Your task to perform on an android device: Go to Amazon Image 0: 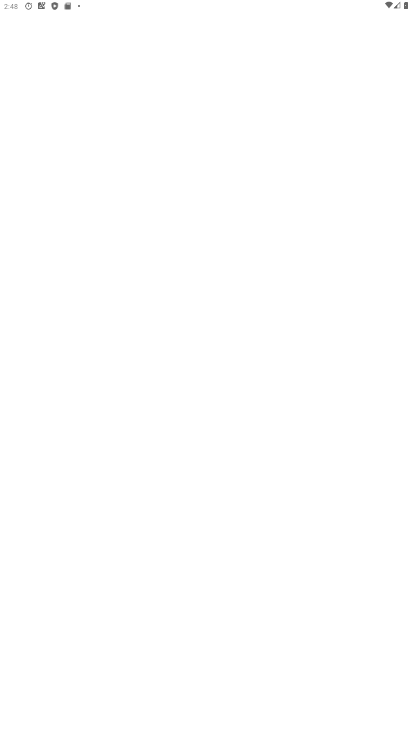
Step 0: click (137, 671)
Your task to perform on an android device: Go to Amazon Image 1: 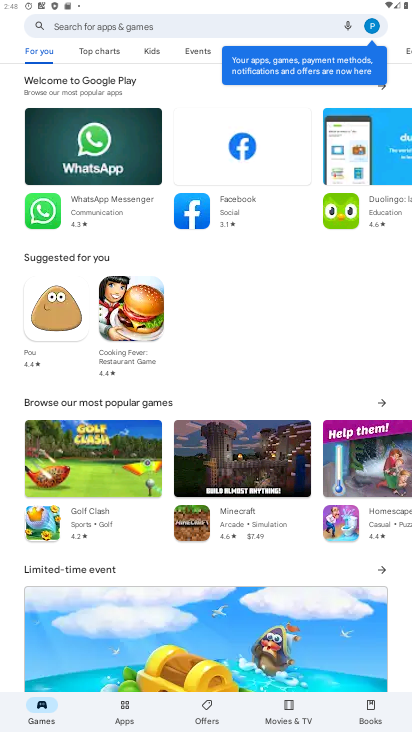
Step 1: press home button
Your task to perform on an android device: Go to Amazon Image 2: 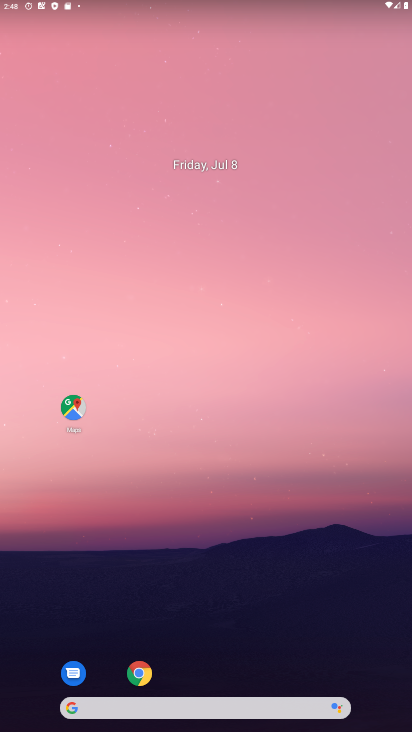
Step 2: click (149, 670)
Your task to perform on an android device: Go to Amazon Image 3: 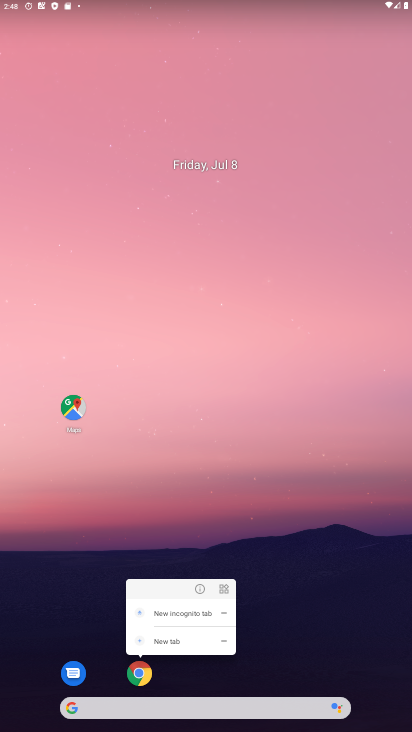
Step 3: click (149, 670)
Your task to perform on an android device: Go to Amazon Image 4: 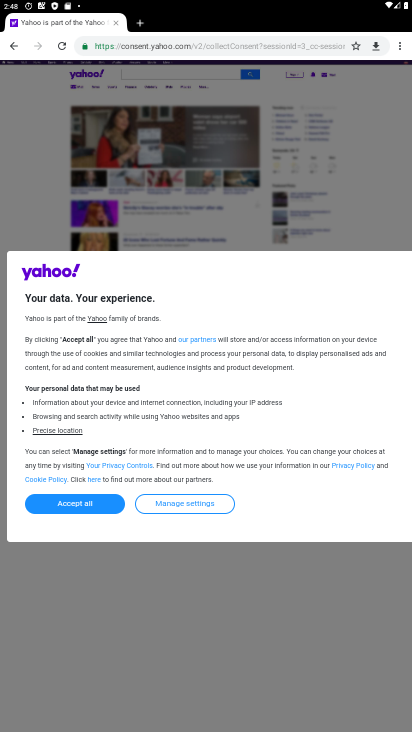
Step 4: click (117, 24)
Your task to perform on an android device: Go to Amazon Image 5: 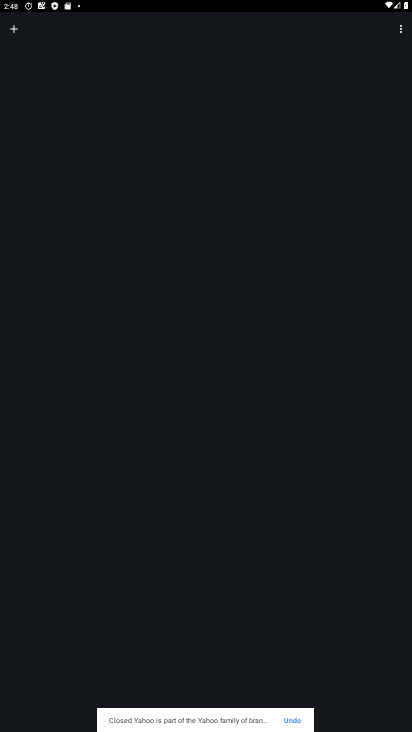
Step 5: click (14, 37)
Your task to perform on an android device: Go to Amazon Image 6: 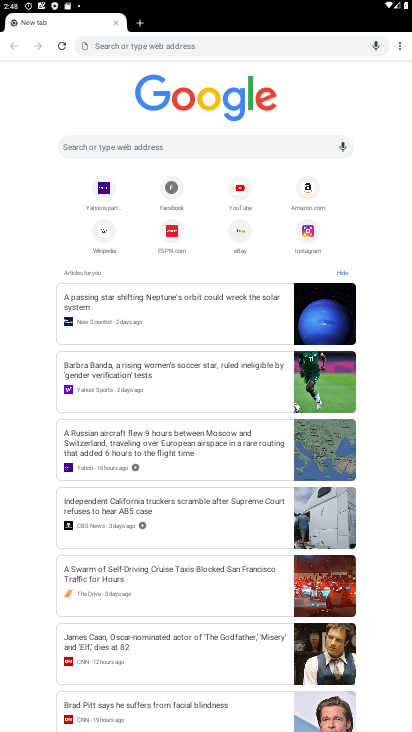
Step 6: click (314, 197)
Your task to perform on an android device: Go to Amazon Image 7: 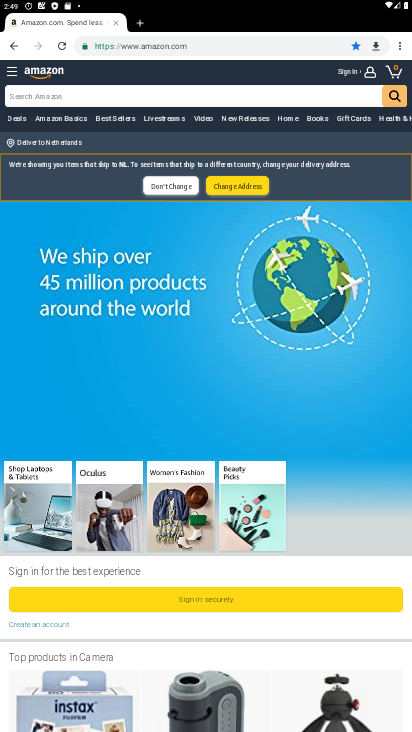
Step 7: task complete